Your task to perform on an android device: Open calendar and show me the second week of next month Image 0: 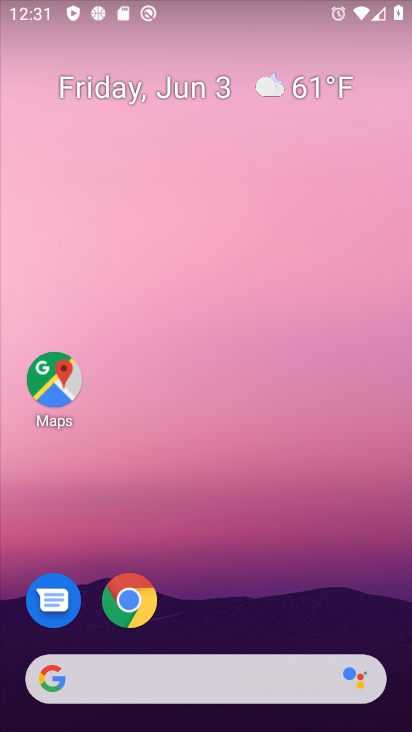
Step 0: press home button
Your task to perform on an android device: Open calendar and show me the second week of next month Image 1: 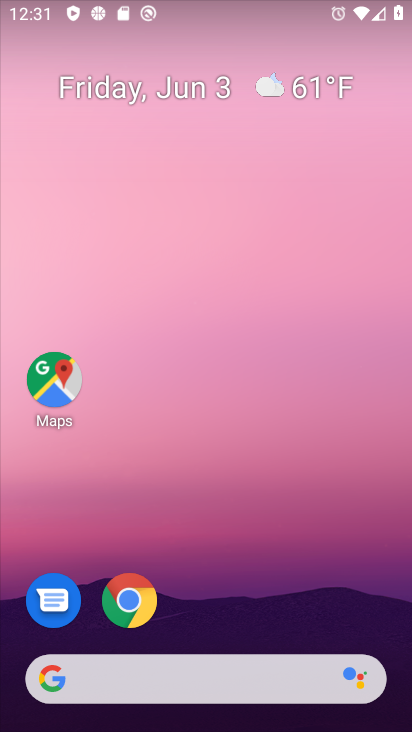
Step 1: drag from (260, 546) to (221, 241)
Your task to perform on an android device: Open calendar and show me the second week of next month Image 2: 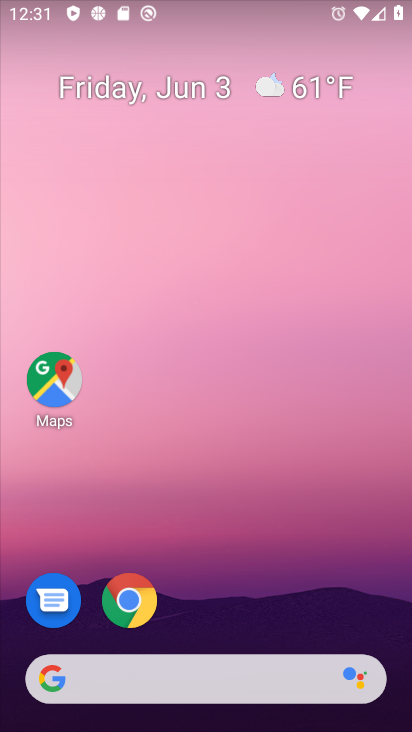
Step 2: drag from (238, 590) to (260, 200)
Your task to perform on an android device: Open calendar and show me the second week of next month Image 3: 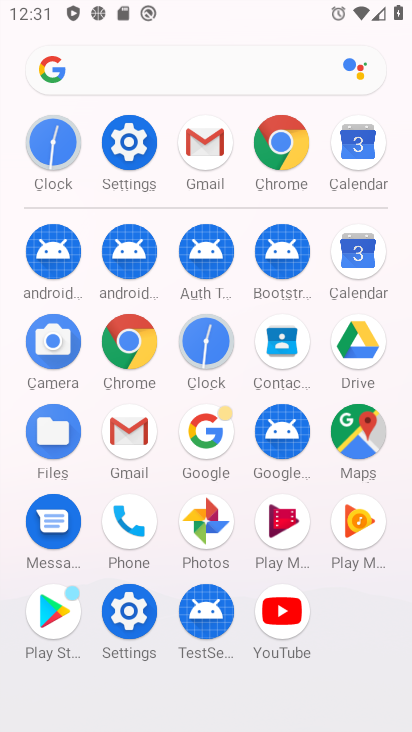
Step 3: click (367, 151)
Your task to perform on an android device: Open calendar and show me the second week of next month Image 4: 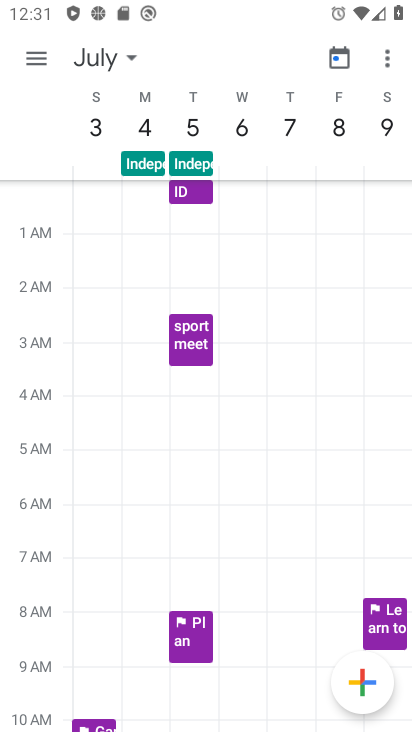
Step 4: click (93, 56)
Your task to perform on an android device: Open calendar and show me the second week of next month Image 5: 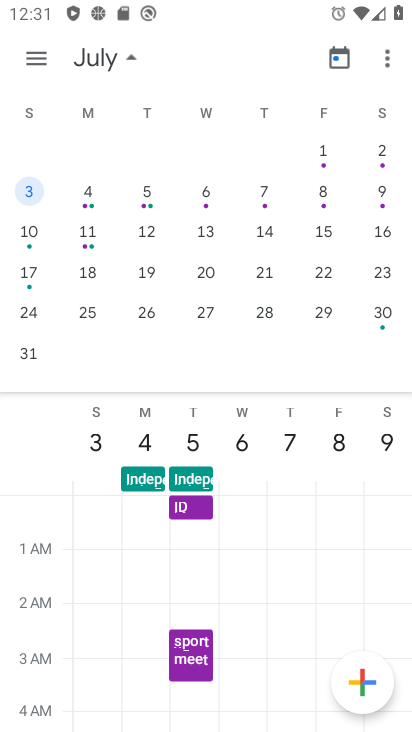
Step 5: click (342, 258)
Your task to perform on an android device: Open calendar and show me the second week of next month Image 6: 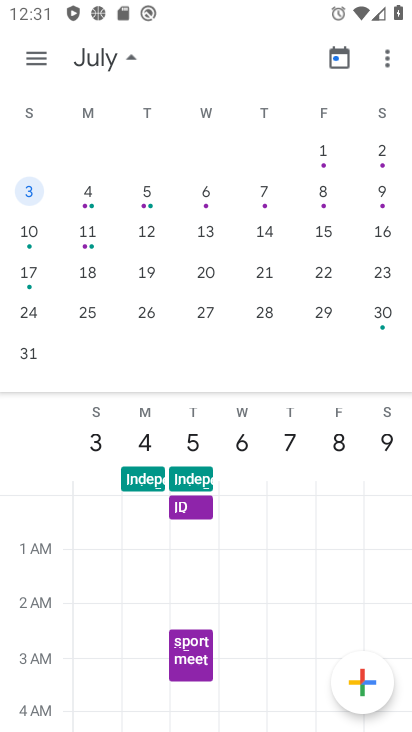
Step 6: click (28, 232)
Your task to perform on an android device: Open calendar and show me the second week of next month Image 7: 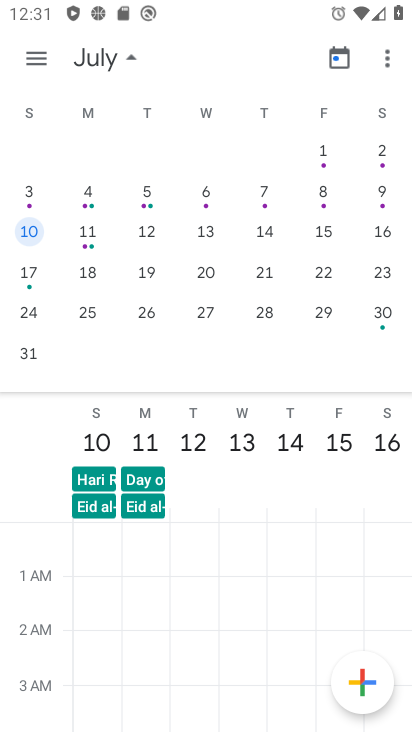
Step 7: task complete